Your task to perform on an android device: toggle sleep mode Image 0: 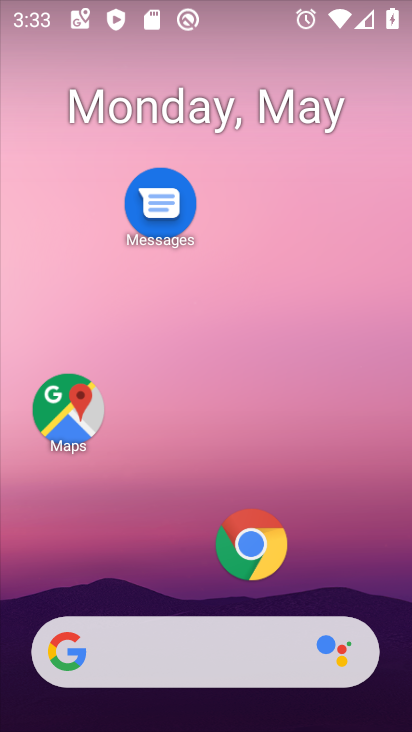
Step 0: drag from (154, 596) to (154, 236)
Your task to perform on an android device: toggle sleep mode Image 1: 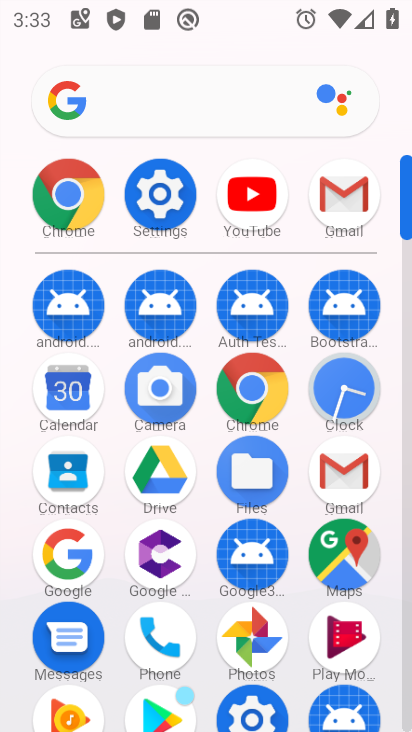
Step 1: click (148, 202)
Your task to perform on an android device: toggle sleep mode Image 2: 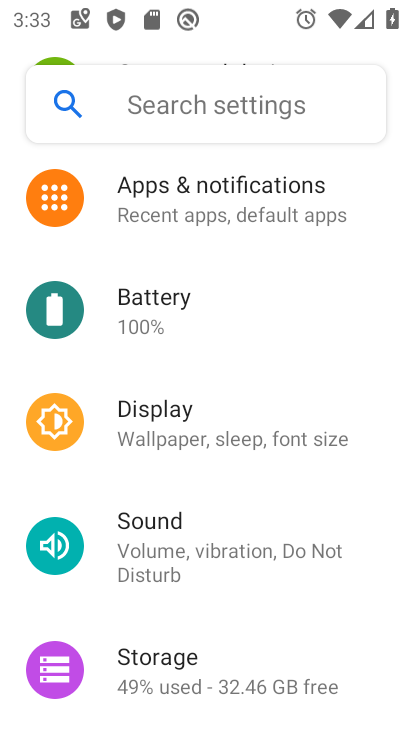
Step 2: drag from (183, 258) to (240, 410)
Your task to perform on an android device: toggle sleep mode Image 3: 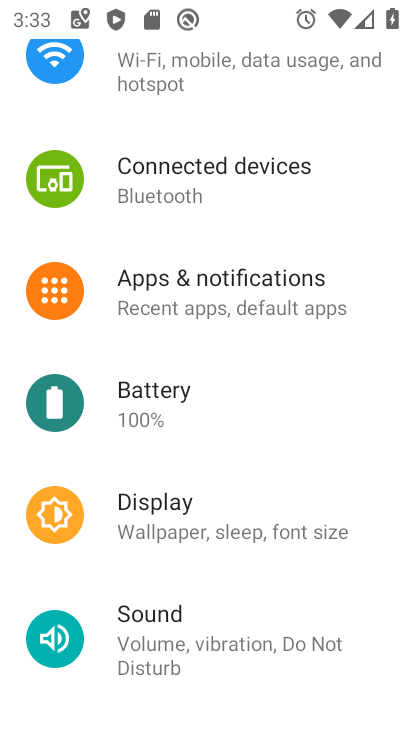
Step 3: click (226, 494)
Your task to perform on an android device: toggle sleep mode Image 4: 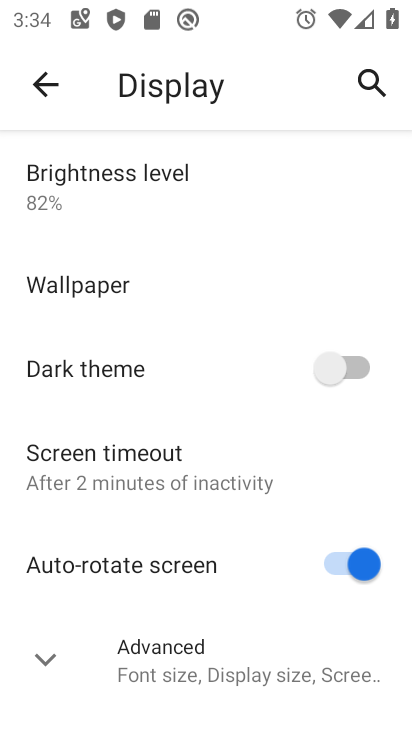
Step 4: click (224, 496)
Your task to perform on an android device: toggle sleep mode Image 5: 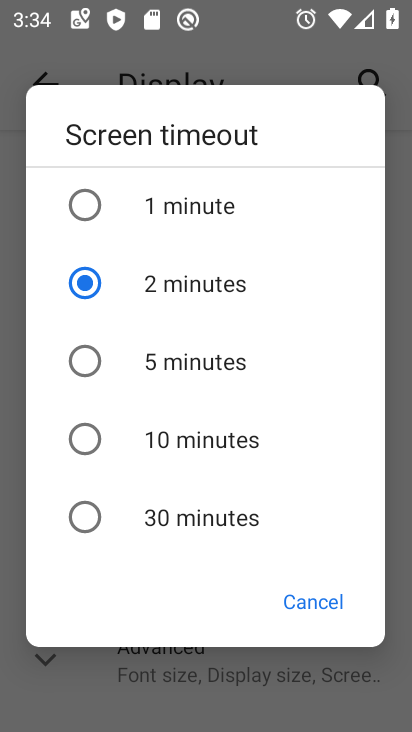
Step 5: click (181, 442)
Your task to perform on an android device: toggle sleep mode Image 6: 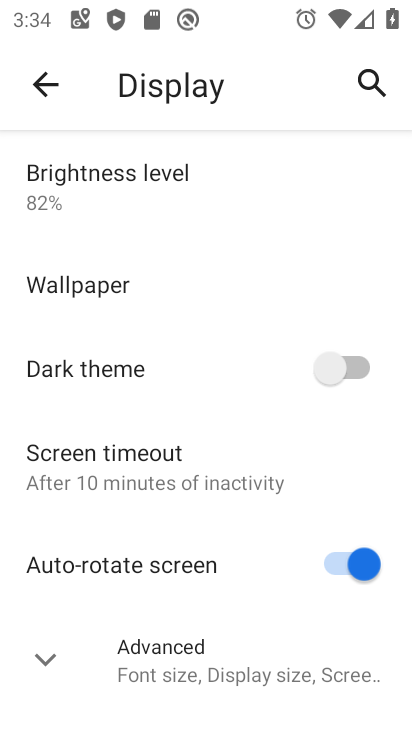
Step 6: task complete